Your task to perform on an android device: open the mobile data screen to see how much data has been used Image 0: 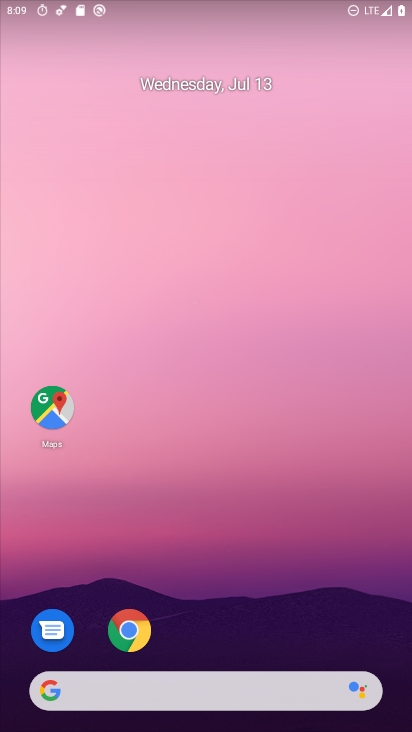
Step 0: drag from (374, 633) to (204, 39)
Your task to perform on an android device: open the mobile data screen to see how much data has been used Image 1: 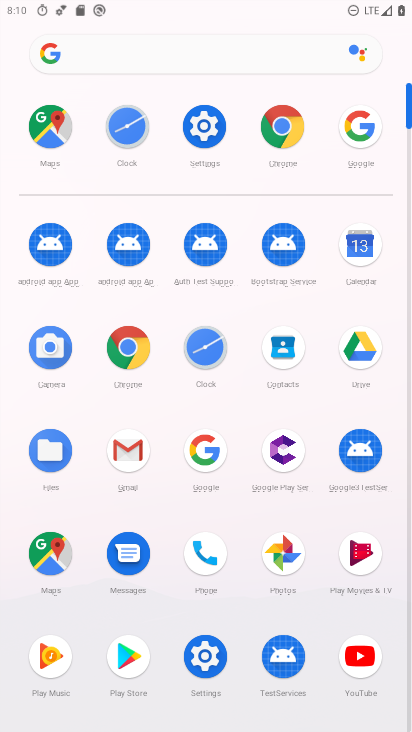
Step 1: click (192, 128)
Your task to perform on an android device: open the mobile data screen to see how much data has been used Image 2: 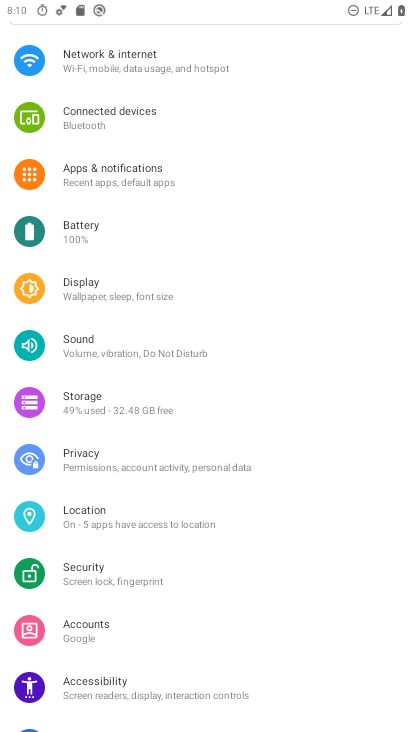
Step 2: click (117, 87)
Your task to perform on an android device: open the mobile data screen to see how much data has been used Image 3: 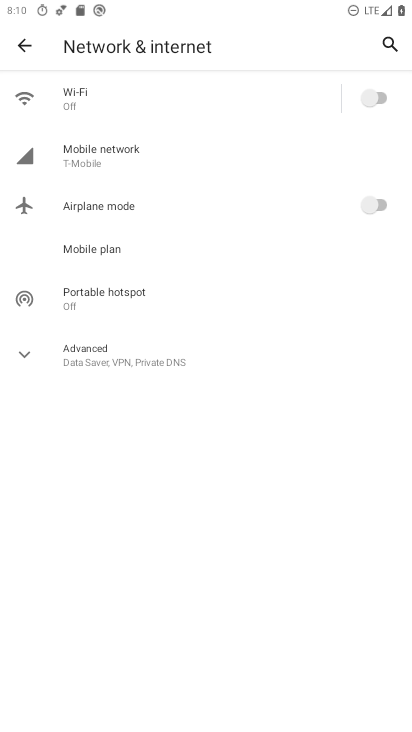
Step 3: click (124, 150)
Your task to perform on an android device: open the mobile data screen to see how much data has been used Image 4: 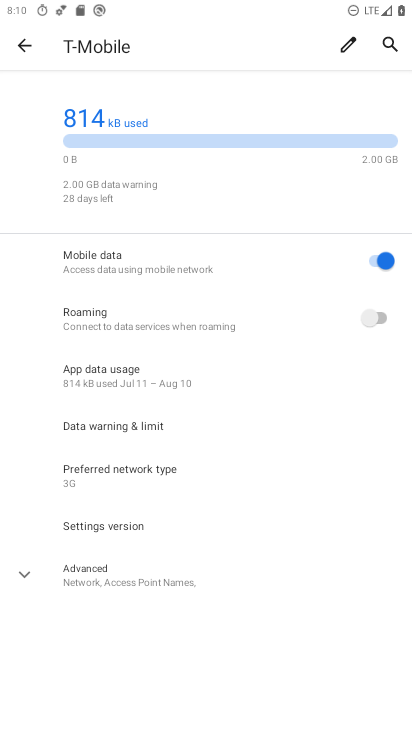
Step 4: click (135, 381)
Your task to perform on an android device: open the mobile data screen to see how much data has been used Image 5: 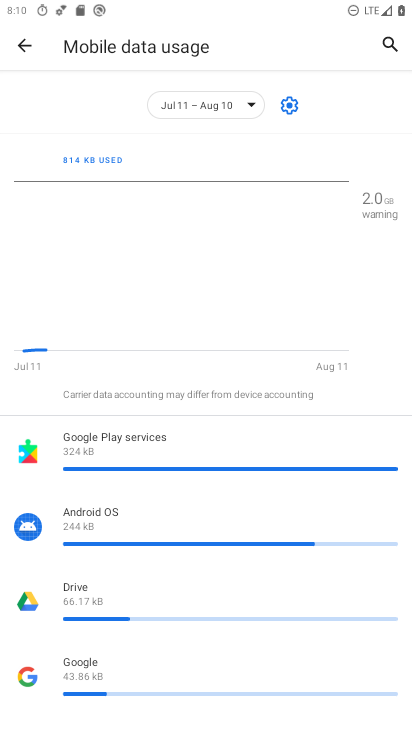
Step 5: task complete